Your task to perform on an android device: install app "Truecaller" Image 0: 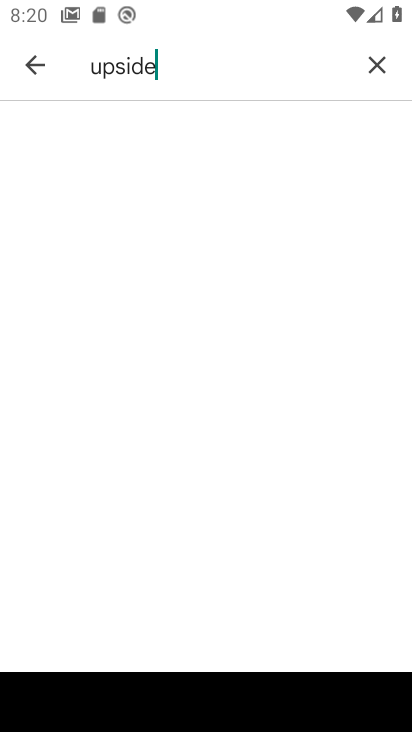
Step 0: click (372, 71)
Your task to perform on an android device: install app "Truecaller" Image 1: 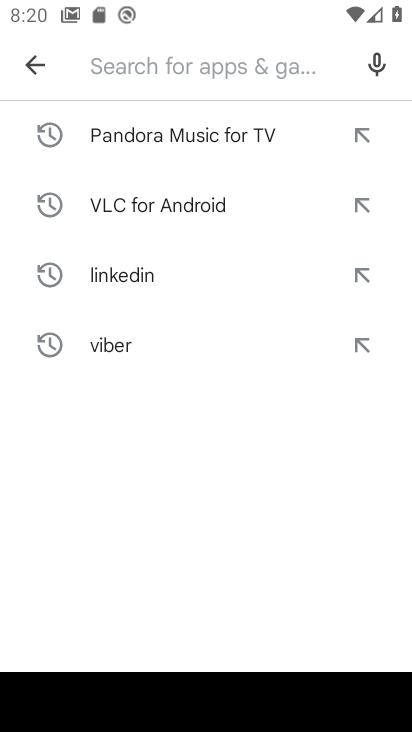
Step 1: type "truecall"
Your task to perform on an android device: install app "Truecaller" Image 2: 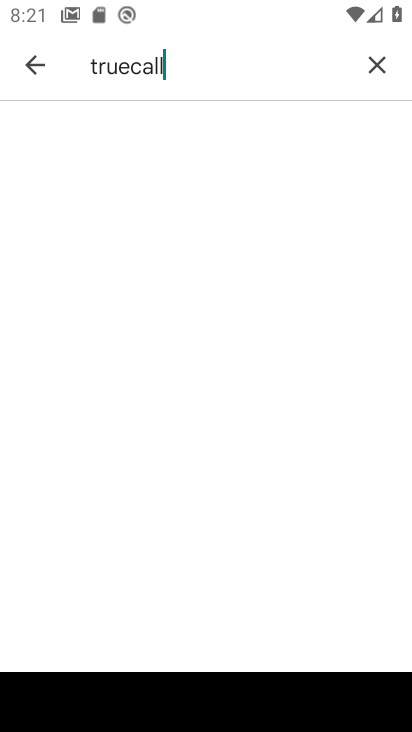
Step 2: task complete